Your task to perform on an android device: turn off translation in the chrome app Image 0: 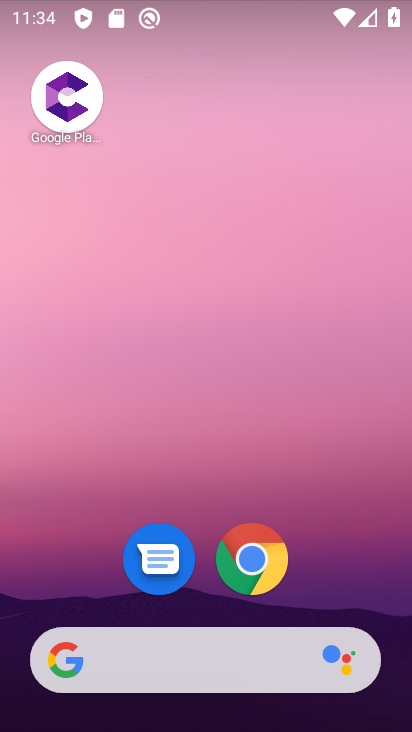
Step 0: drag from (341, 572) to (326, 187)
Your task to perform on an android device: turn off translation in the chrome app Image 1: 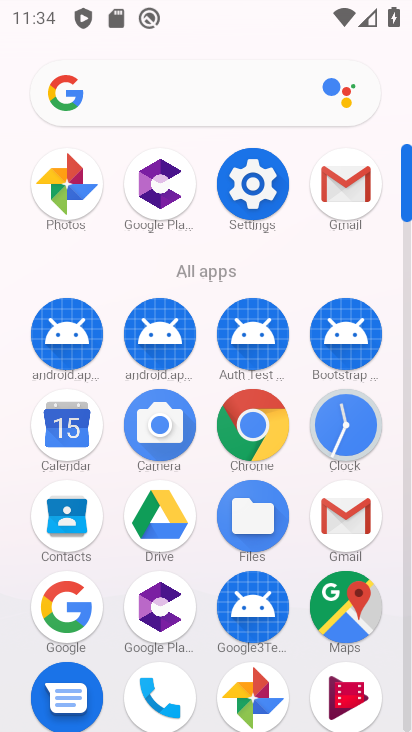
Step 1: click (268, 434)
Your task to perform on an android device: turn off translation in the chrome app Image 2: 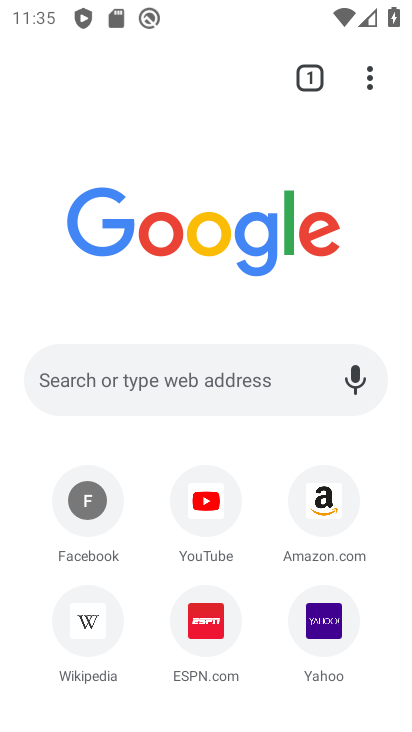
Step 2: drag from (269, 482) to (287, 159)
Your task to perform on an android device: turn off translation in the chrome app Image 3: 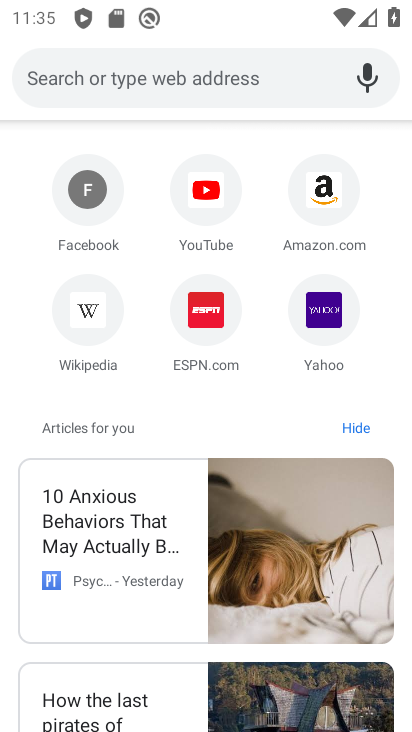
Step 3: drag from (177, 645) to (186, 336)
Your task to perform on an android device: turn off translation in the chrome app Image 4: 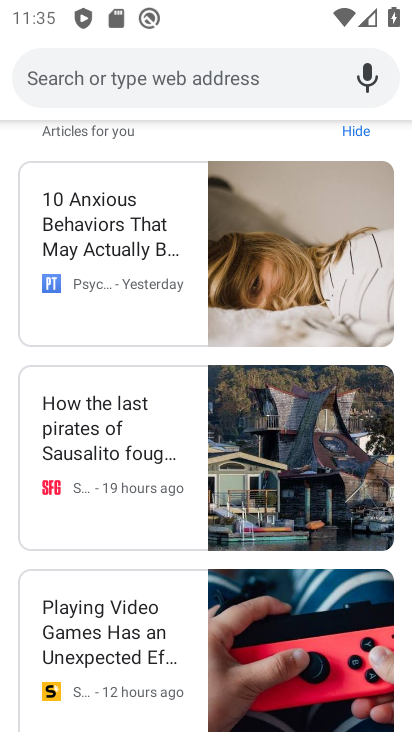
Step 4: drag from (114, 237) to (116, 585)
Your task to perform on an android device: turn off translation in the chrome app Image 5: 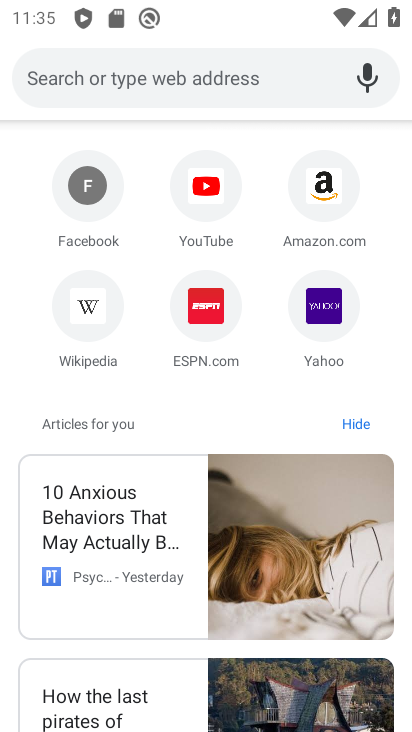
Step 5: drag from (206, 125) to (96, 573)
Your task to perform on an android device: turn off translation in the chrome app Image 6: 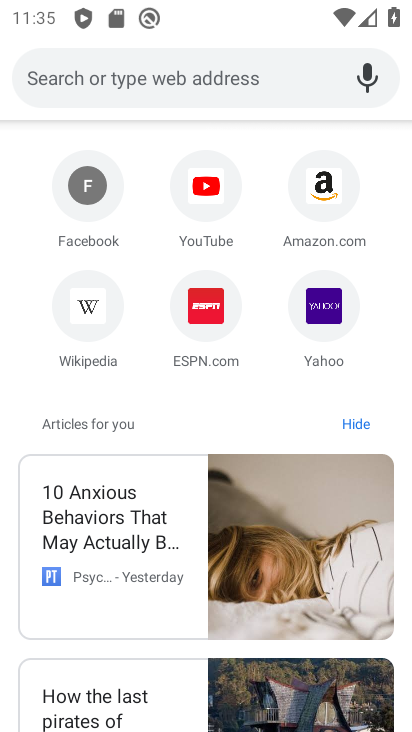
Step 6: drag from (165, 172) to (129, 597)
Your task to perform on an android device: turn off translation in the chrome app Image 7: 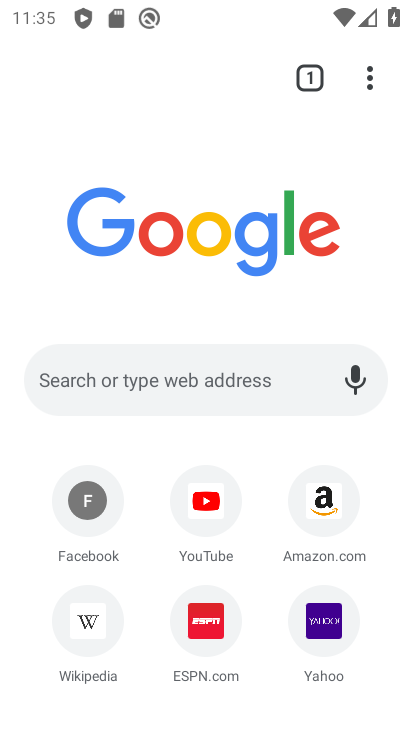
Step 7: drag from (366, 82) to (106, 627)
Your task to perform on an android device: turn off translation in the chrome app Image 8: 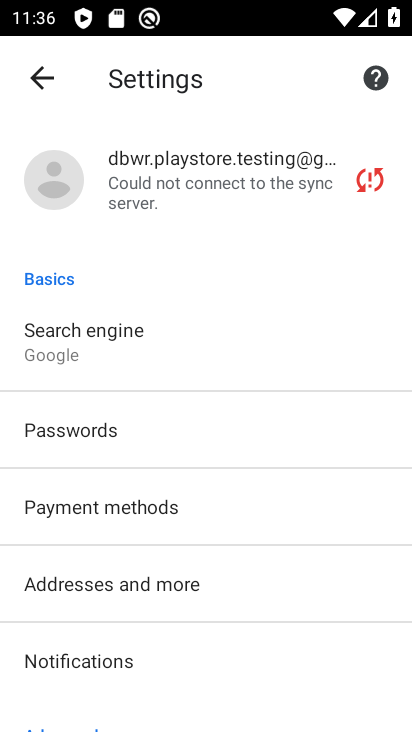
Step 8: drag from (302, 672) to (319, 358)
Your task to perform on an android device: turn off translation in the chrome app Image 9: 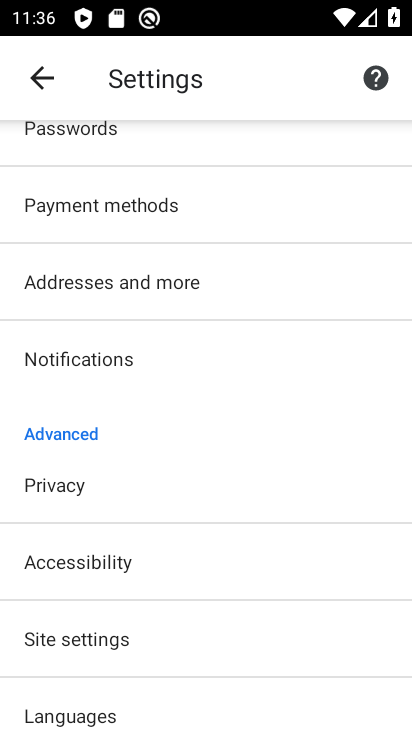
Step 9: drag from (218, 680) to (200, 305)
Your task to perform on an android device: turn off translation in the chrome app Image 10: 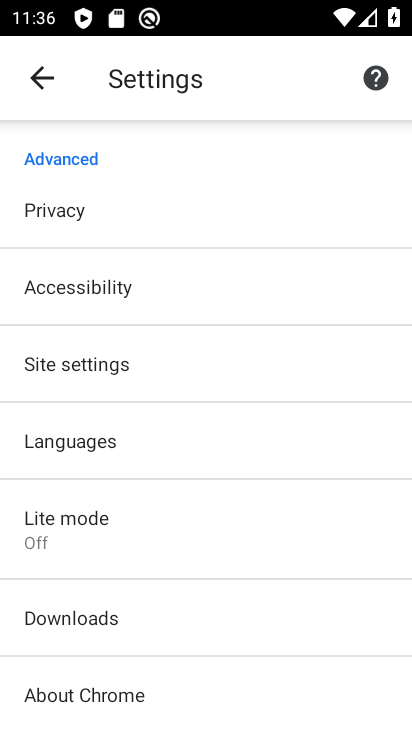
Step 10: drag from (247, 235) to (212, 610)
Your task to perform on an android device: turn off translation in the chrome app Image 11: 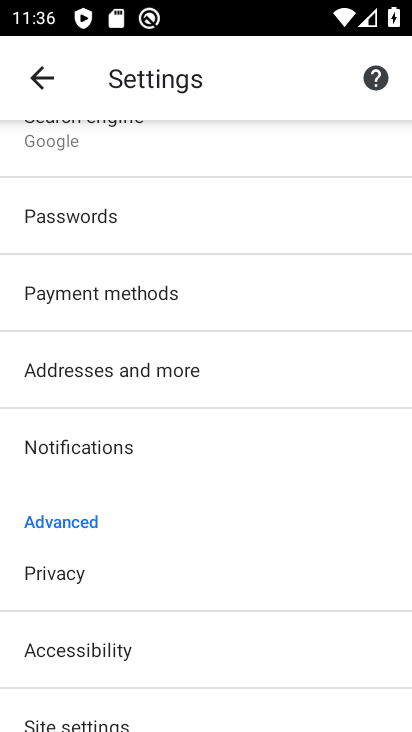
Step 11: drag from (271, 307) to (259, 546)
Your task to perform on an android device: turn off translation in the chrome app Image 12: 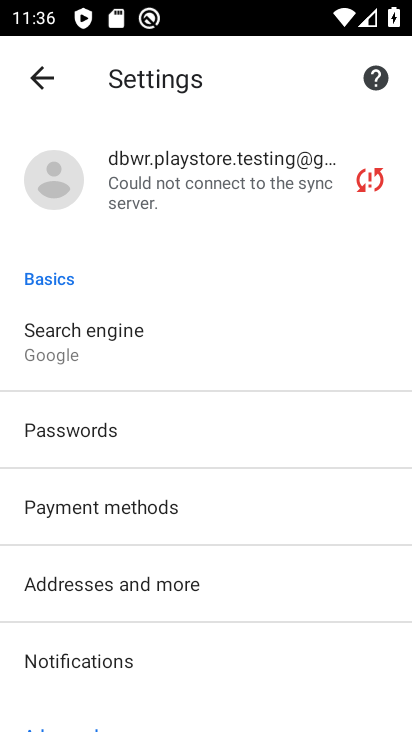
Step 12: drag from (275, 617) to (282, 274)
Your task to perform on an android device: turn off translation in the chrome app Image 13: 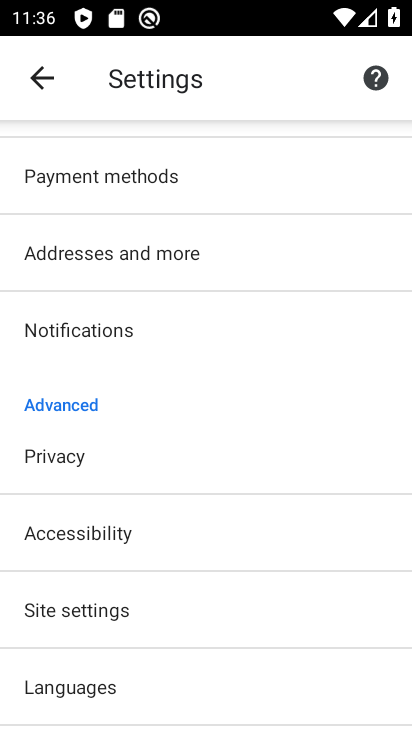
Step 13: drag from (299, 582) to (307, 319)
Your task to perform on an android device: turn off translation in the chrome app Image 14: 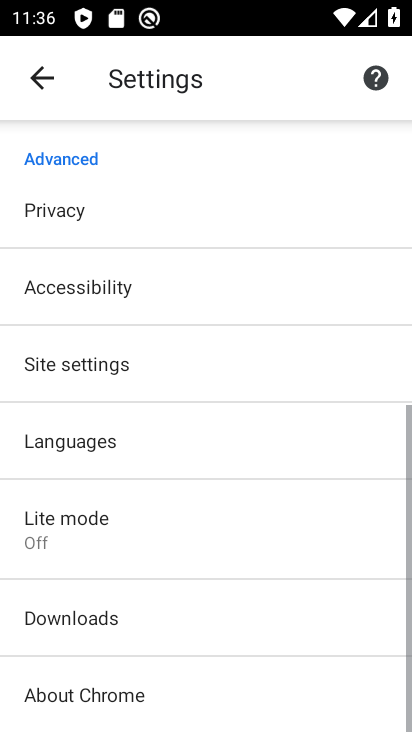
Step 14: drag from (312, 657) to (309, 307)
Your task to perform on an android device: turn off translation in the chrome app Image 15: 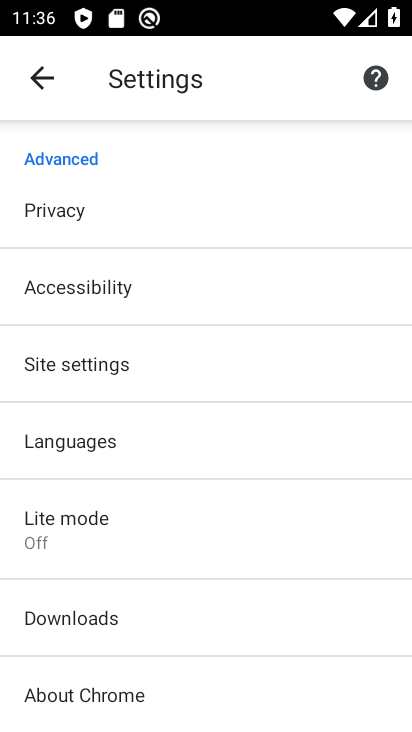
Step 15: click (113, 455)
Your task to perform on an android device: turn off translation in the chrome app Image 16: 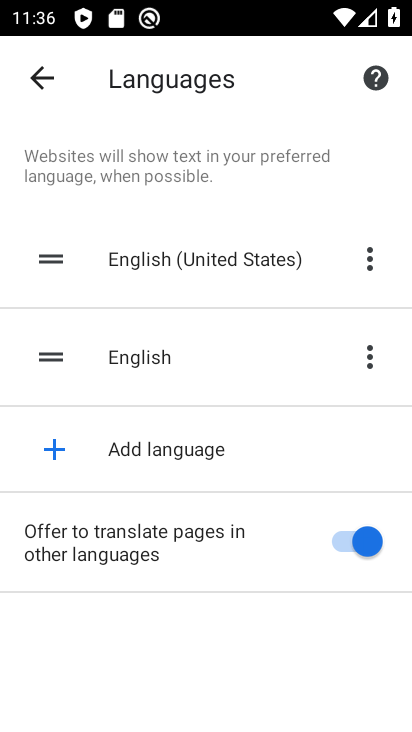
Step 16: click (345, 542)
Your task to perform on an android device: turn off translation in the chrome app Image 17: 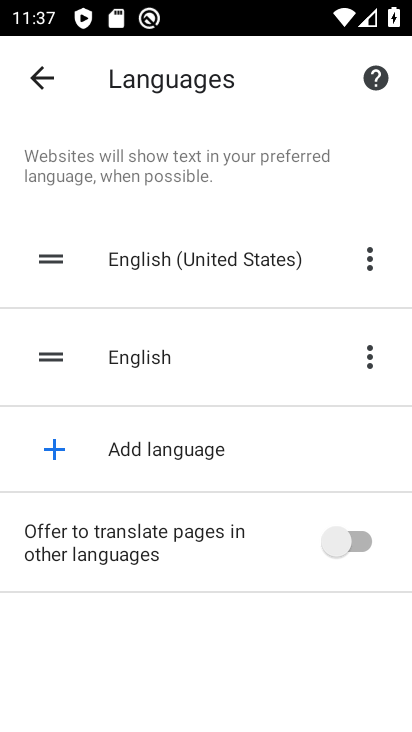
Step 17: task complete